Your task to perform on an android device: Open Google Maps and go to "Timeline" Image 0: 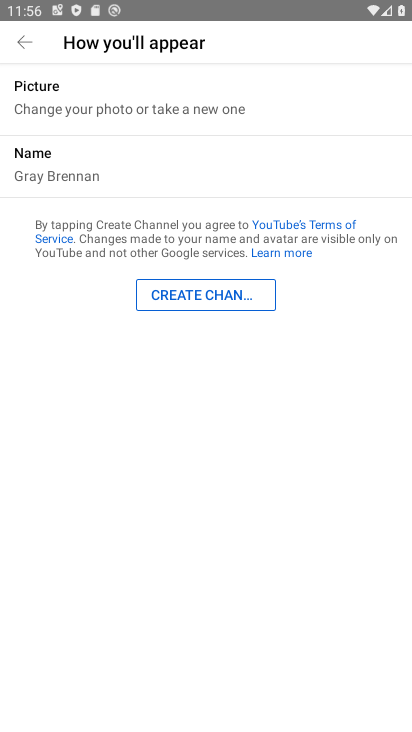
Step 0: click (376, 1)
Your task to perform on an android device: Open Google Maps and go to "Timeline" Image 1: 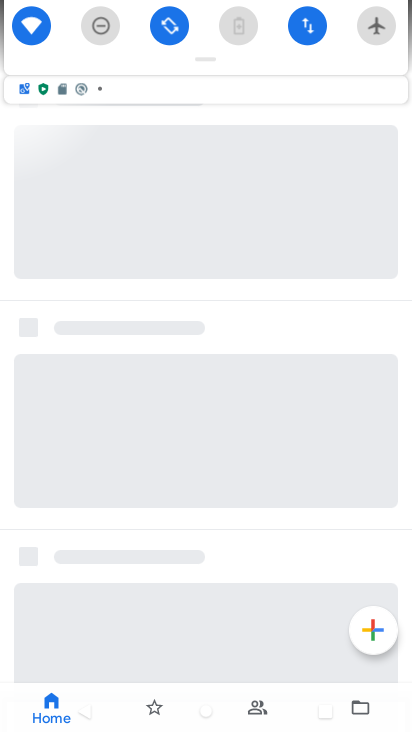
Step 1: press home button
Your task to perform on an android device: Open Google Maps and go to "Timeline" Image 2: 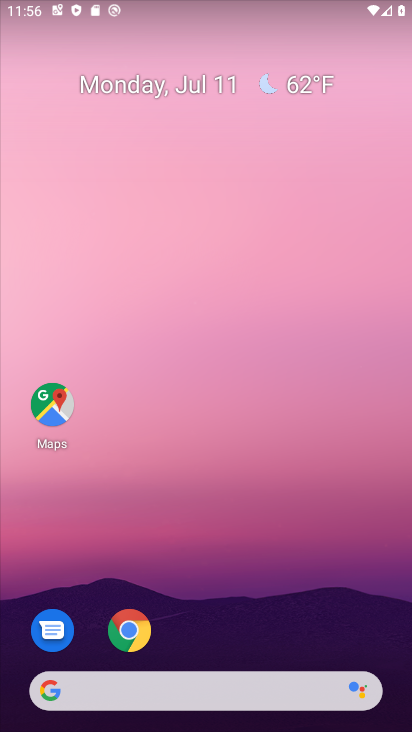
Step 2: drag from (238, 681) to (180, 82)
Your task to perform on an android device: Open Google Maps and go to "Timeline" Image 3: 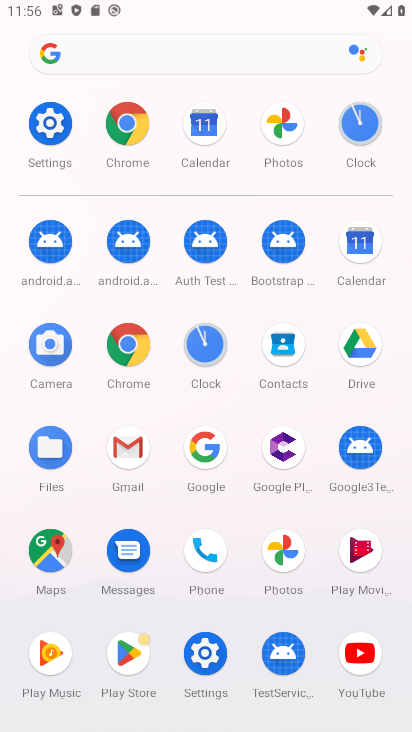
Step 3: click (51, 545)
Your task to perform on an android device: Open Google Maps and go to "Timeline" Image 4: 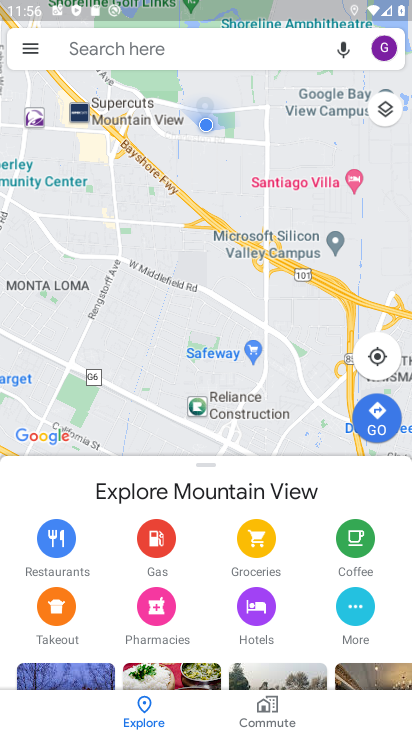
Step 4: click (21, 48)
Your task to perform on an android device: Open Google Maps and go to "Timeline" Image 5: 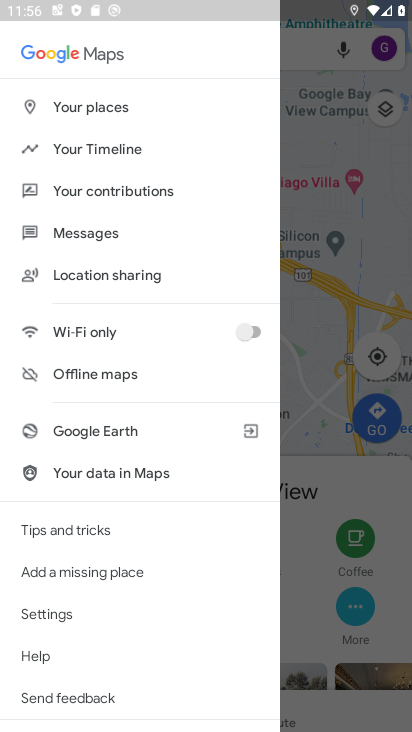
Step 5: click (82, 153)
Your task to perform on an android device: Open Google Maps and go to "Timeline" Image 6: 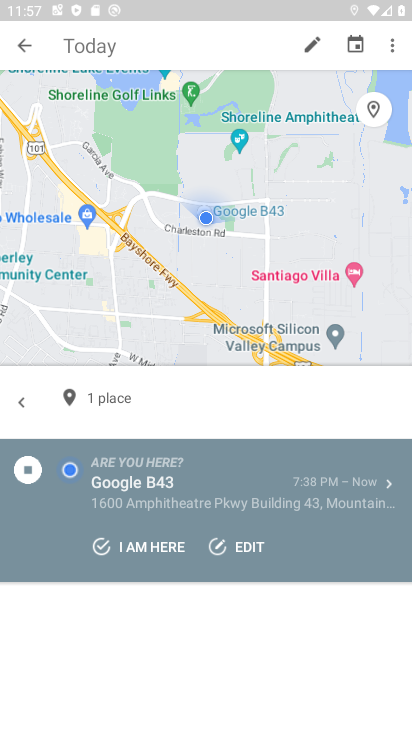
Step 6: task complete